Your task to perform on an android device: Search for "jbl flip 4" on target.com, select the first entry, add it to the cart, then select checkout. Image 0: 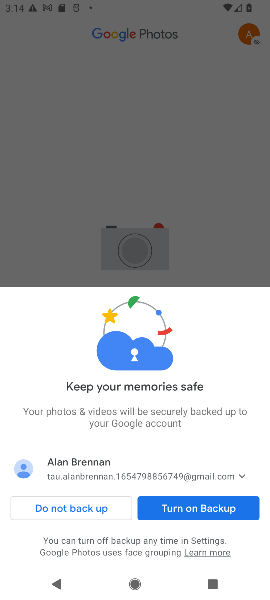
Step 0: press home button
Your task to perform on an android device: Search for "jbl flip 4" on target.com, select the first entry, add it to the cart, then select checkout. Image 1: 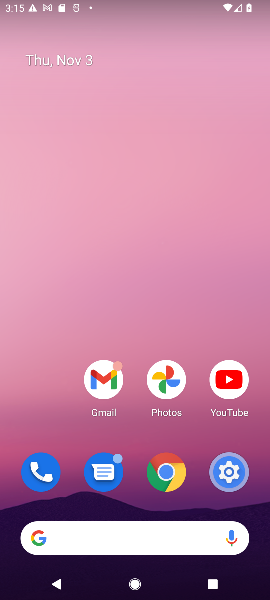
Step 1: click (94, 547)
Your task to perform on an android device: Search for "jbl flip 4" on target.com, select the first entry, add it to the cart, then select checkout. Image 2: 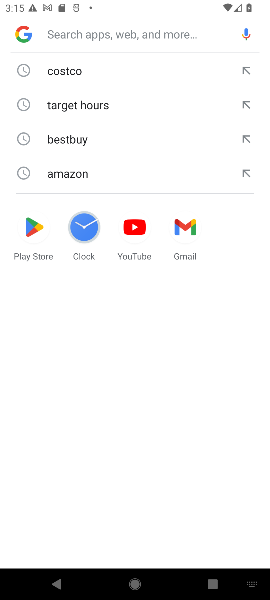
Step 2: type "target"
Your task to perform on an android device: Search for "jbl flip 4" on target.com, select the first entry, add it to the cart, then select checkout. Image 3: 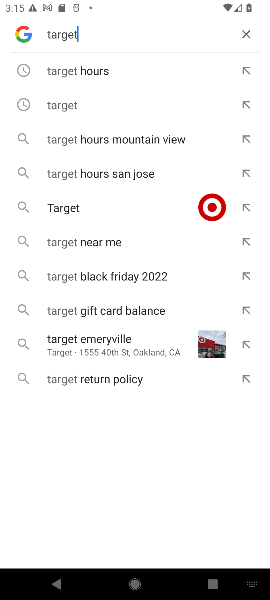
Step 3: click (142, 73)
Your task to perform on an android device: Search for "jbl flip 4" on target.com, select the first entry, add it to the cart, then select checkout. Image 4: 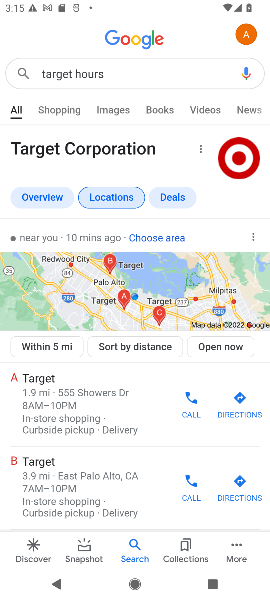
Step 4: click (120, 78)
Your task to perform on an android device: Search for "jbl flip 4" on target.com, select the first entry, add it to the cart, then select checkout. Image 5: 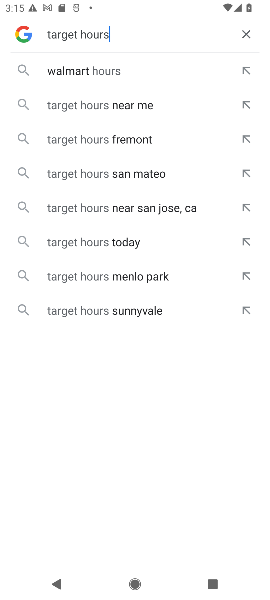
Step 5: click (120, 78)
Your task to perform on an android device: Search for "jbl flip 4" on target.com, select the first entry, add it to the cart, then select checkout. Image 6: 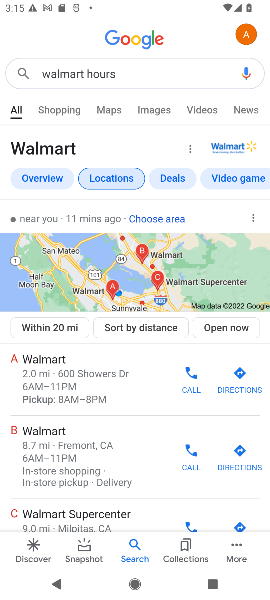
Step 6: click (139, 82)
Your task to perform on an android device: Search for "jbl flip 4" on target.com, select the first entry, add it to the cart, then select checkout. Image 7: 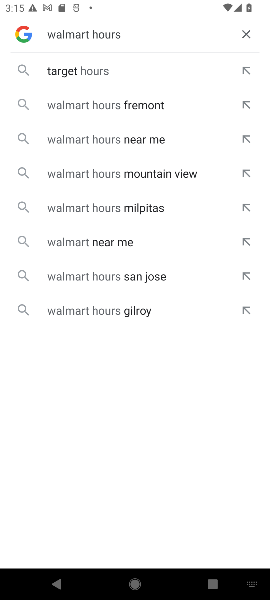
Step 7: type "target"
Your task to perform on an android device: Search for "jbl flip 4" on target.com, select the first entry, add it to the cart, then select checkout. Image 8: 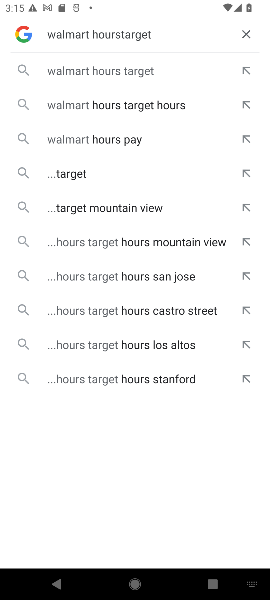
Step 8: click (243, 37)
Your task to perform on an android device: Search for "jbl flip 4" on target.com, select the first entry, add it to the cart, then select checkout. Image 9: 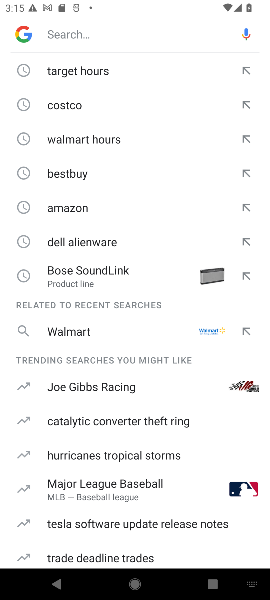
Step 9: type "traet"
Your task to perform on an android device: Search for "jbl flip 4" on target.com, select the first entry, add it to the cart, then select checkout. Image 10: 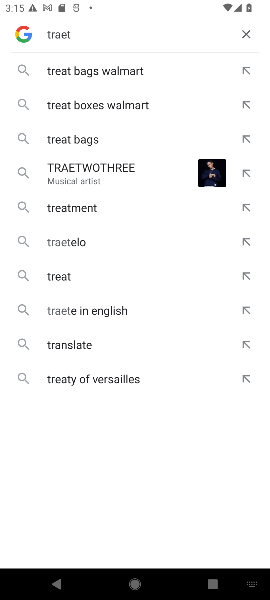
Step 10: click (247, 38)
Your task to perform on an android device: Search for "jbl flip 4" on target.com, select the first entry, add it to the cart, then select checkout. Image 11: 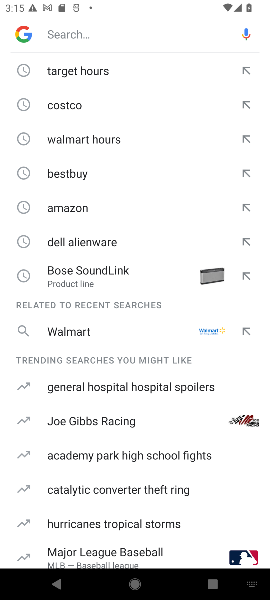
Step 11: type "target"
Your task to perform on an android device: Search for "jbl flip 4" on target.com, select the first entry, add it to the cart, then select checkout. Image 12: 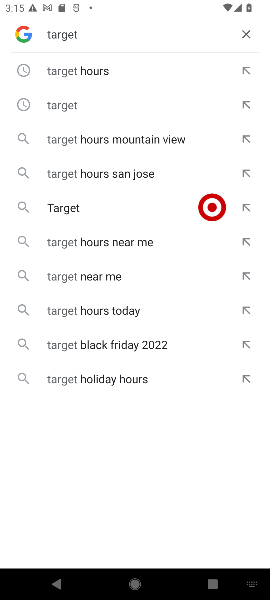
Step 12: click (96, 100)
Your task to perform on an android device: Search for "jbl flip 4" on target.com, select the first entry, add it to the cart, then select checkout. Image 13: 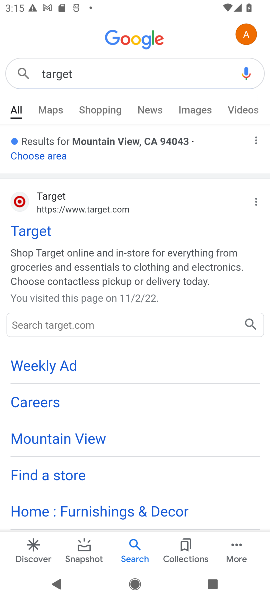
Step 13: click (41, 242)
Your task to perform on an android device: Search for "jbl flip 4" on target.com, select the first entry, add it to the cart, then select checkout. Image 14: 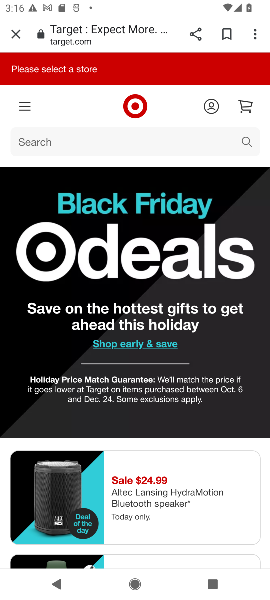
Step 14: click (116, 142)
Your task to perform on an android device: Search for "jbl flip 4" on target.com, select the first entry, add it to the cart, then select checkout. Image 15: 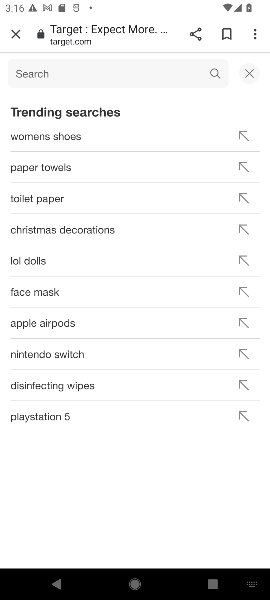
Step 15: type "jbl flip 4"
Your task to perform on an android device: Search for "jbl flip 4" on target.com, select the first entry, add it to the cart, then select checkout. Image 16: 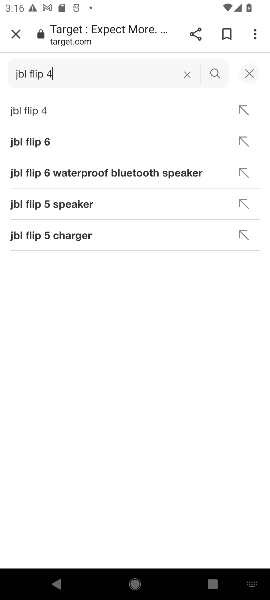
Step 16: click (88, 103)
Your task to perform on an android device: Search for "jbl flip 4" on target.com, select the first entry, add it to the cart, then select checkout. Image 17: 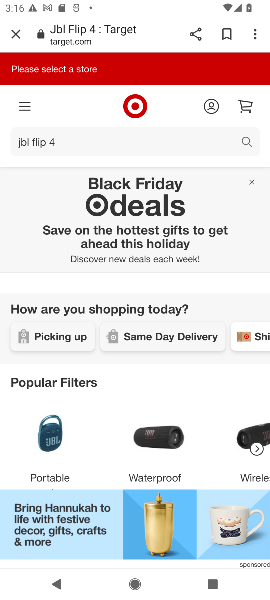
Step 17: click (32, 514)
Your task to perform on an android device: Search for "jbl flip 4" on target.com, select the first entry, add it to the cart, then select checkout. Image 18: 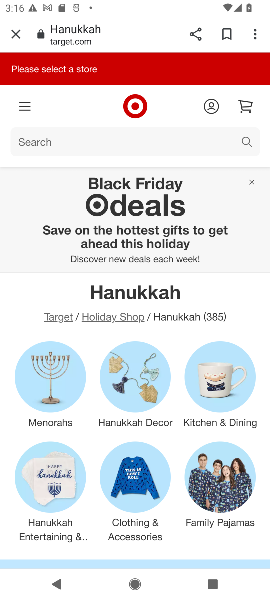
Step 18: drag from (105, 536) to (45, 129)
Your task to perform on an android device: Search for "jbl flip 4" on target.com, select the first entry, add it to the cart, then select checkout. Image 19: 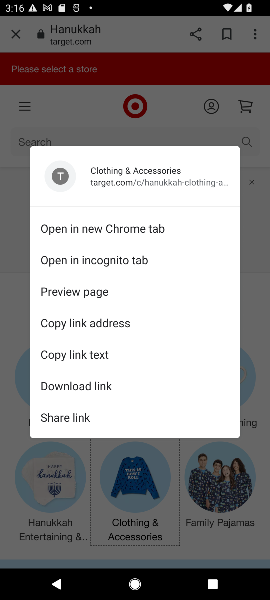
Step 19: click (194, 545)
Your task to perform on an android device: Search for "jbl flip 4" on target.com, select the first entry, add it to the cart, then select checkout. Image 20: 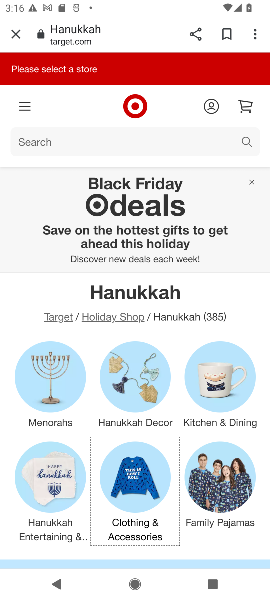
Step 20: drag from (194, 545) to (168, 211)
Your task to perform on an android device: Search for "jbl flip 4" on target.com, select the first entry, add it to the cart, then select checkout. Image 21: 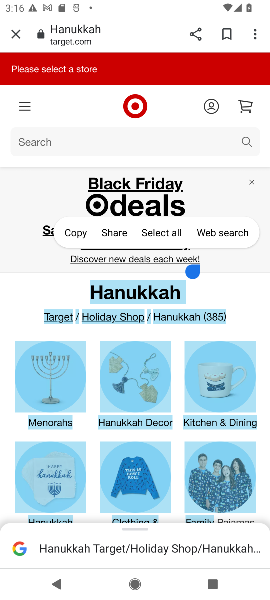
Step 21: click (236, 293)
Your task to perform on an android device: Search for "jbl flip 4" on target.com, select the first entry, add it to the cart, then select checkout. Image 22: 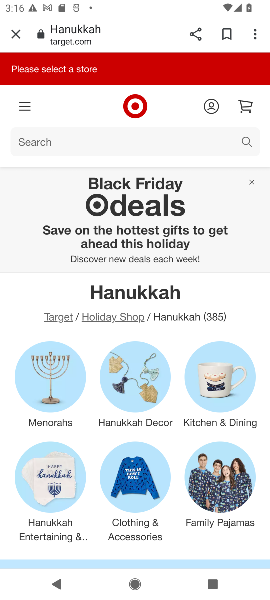
Step 22: task complete